Your task to perform on an android device: Show me the alarms in the clock app Image 0: 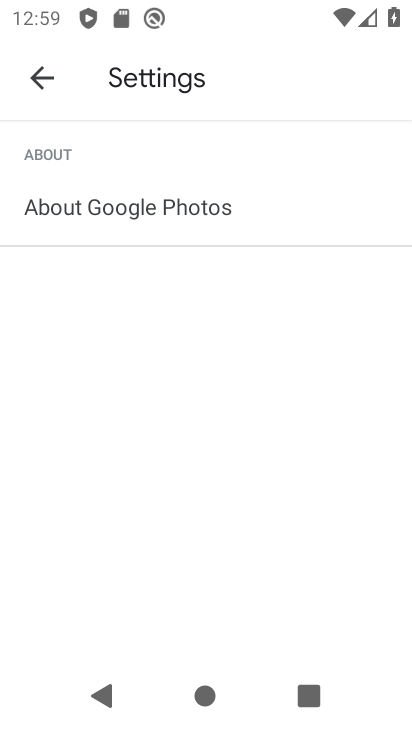
Step 0: press home button
Your task to perform on an android device: Show me the alarms in the clock app Image 1: 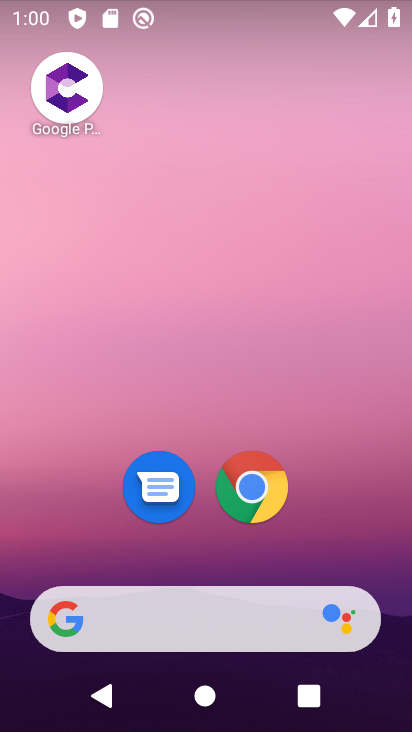
Step 1: drag from (364, 541) to (310, 91)
Your task to perform on an android device: Show me the alarms in the clock app Image 2: 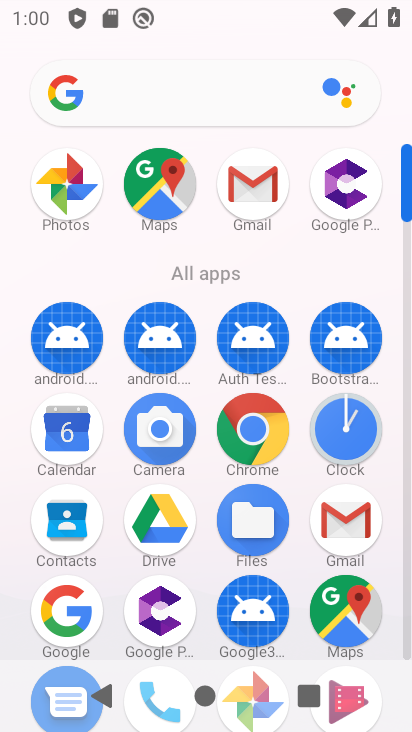
Step 2: click (348, 435)
Your task to perform on an android device: Show me the alarms in the clock app Image 3: 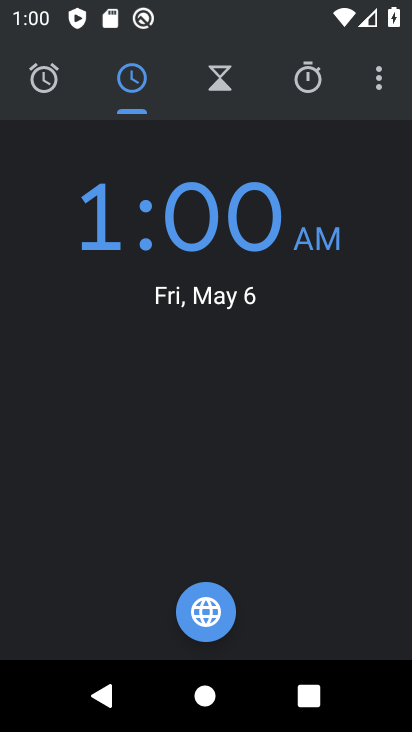
Step 3: click (62, 70)
Your task to perform on an android device: Show me the alarms in the clock app Image 4: 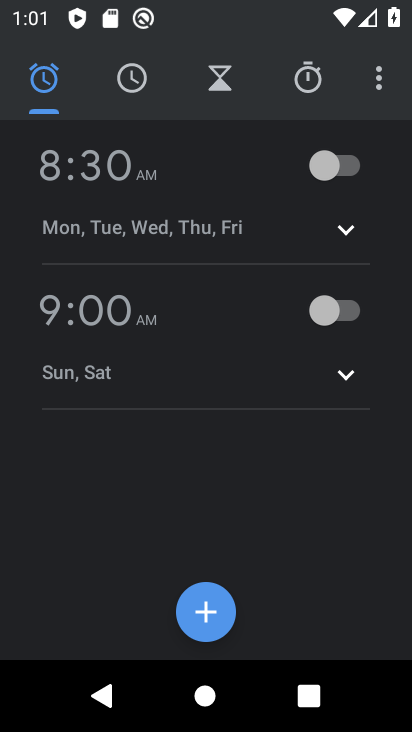
Step 4: task complete